Your task to perform on an android device: Go to Google Image 0: 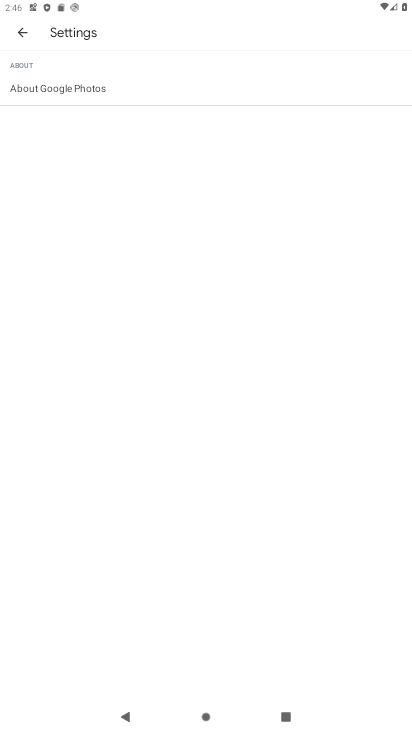
Step 0: press home button
Your task to perform on an android device: Go to Google Image 1: 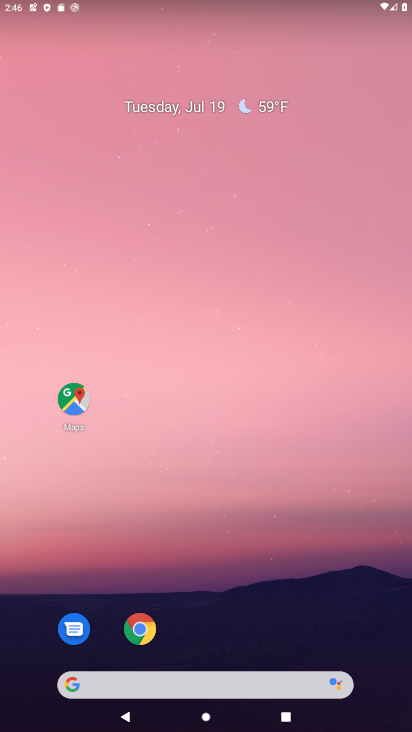
Step 1: click (303, 697)
Your task to perform on an android device: Go to Google Image 2: 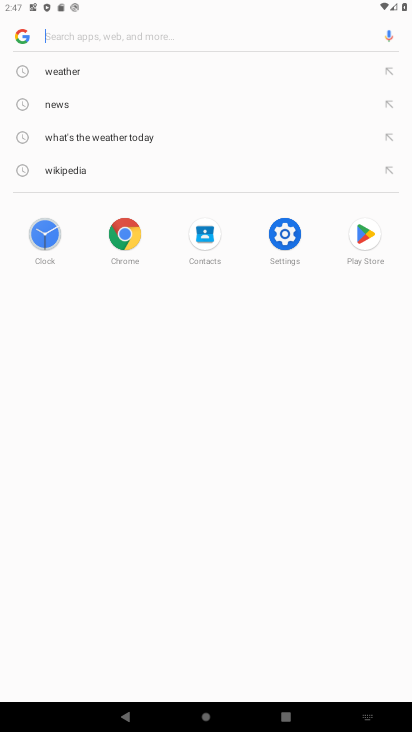
Step 2: task complete